Your task to perform on an android device: Open CNN.com Image 0: 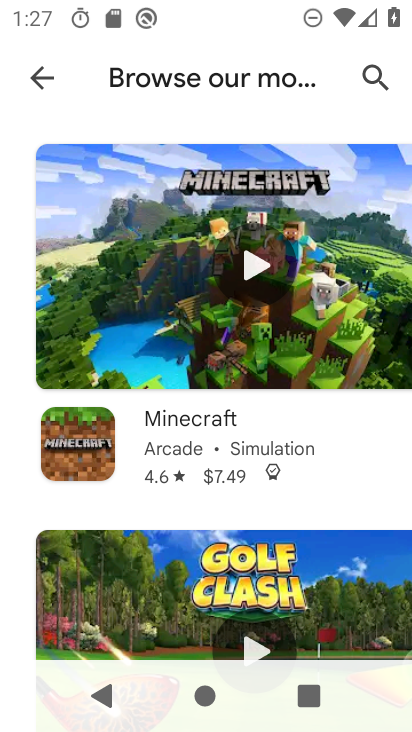
Step 0: press back button
Your task to perform on an android device: Open CNN.com Image 1: 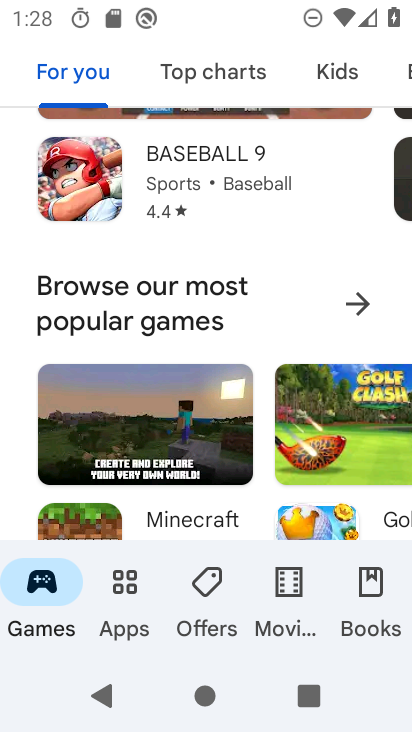
Step 1: press back button
Your task to perform on an android device: Open CNN.com Image 2: 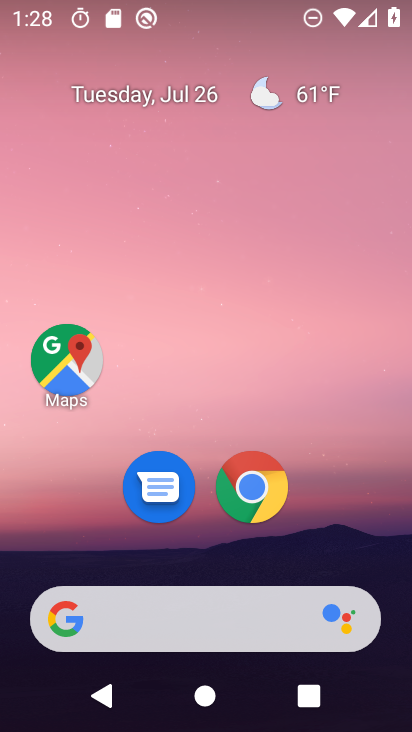
Step 2: click (283, 479)
Your task to perform on an android device: Open CNN.com Image 3: 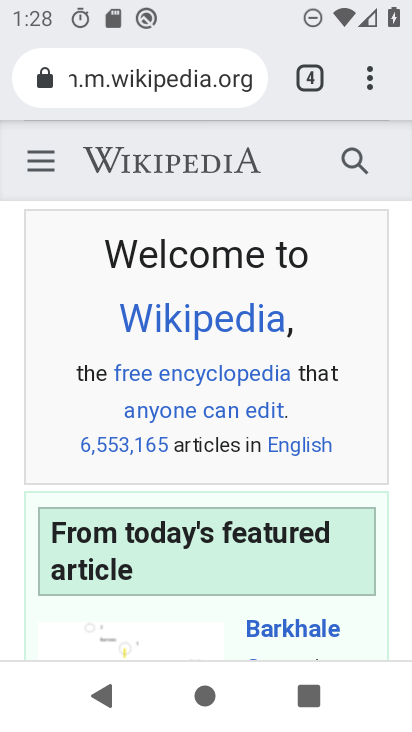
Step 3: click (312, 77)
Your task to perform on an android device: Open CNN.com Image 4: 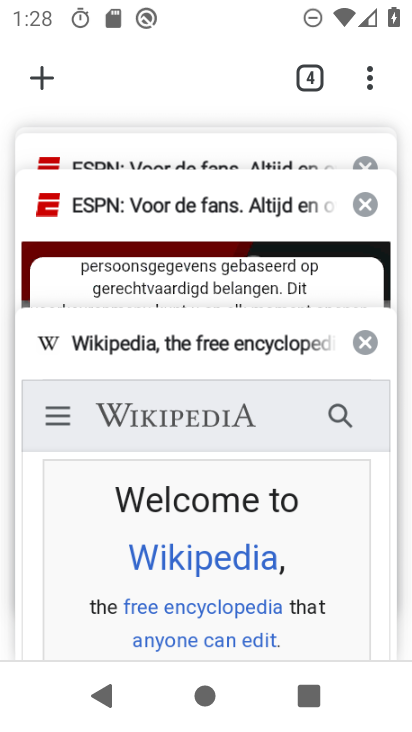
Step 4: drag from (147, 194) to (130, 665)
Your task to perform on an android device: Open CNN.com Image 5: 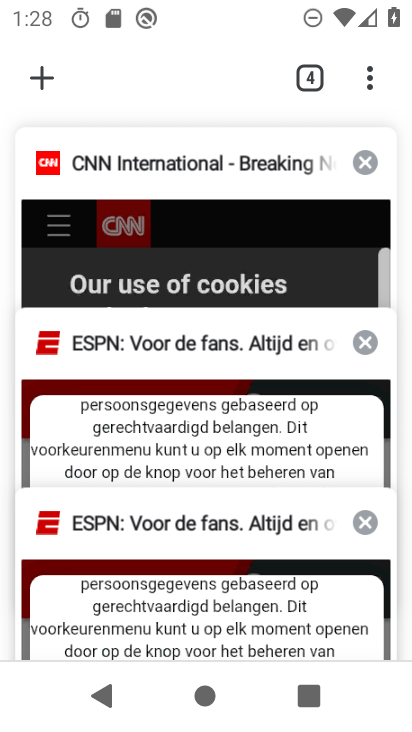
Step 5: click (157, 174)
Your task to perform on an android device: Open CNN.com Image 6: 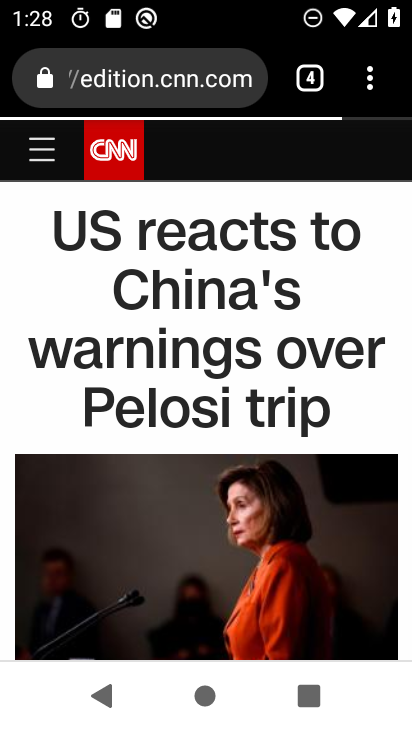
Step 6: task complete